Your task to perform on an android device: What is the recent news? Image 0: 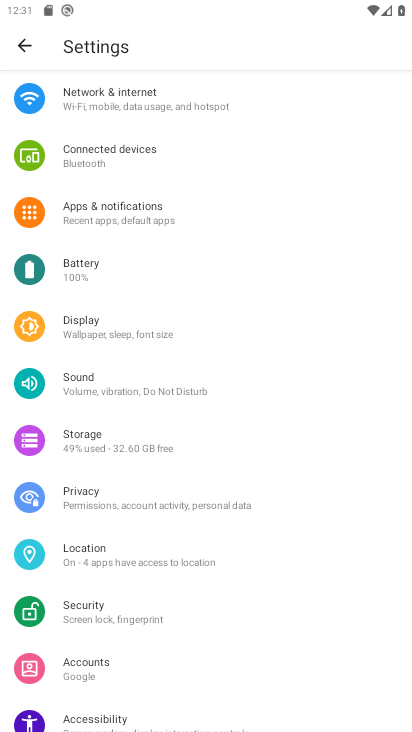
Step 0: press home button
Your task to perform on an android device: What is the recent news? Image 1: 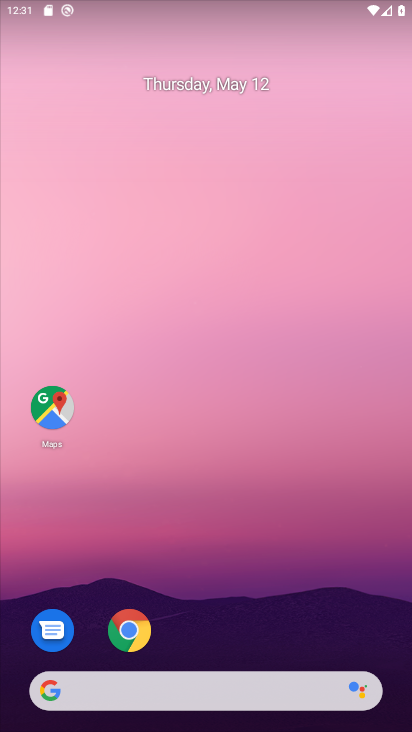
Step 1: drag from (289, 533) to (334, 81)
Your task to perform on an android device: What is the recent news? Image 2: 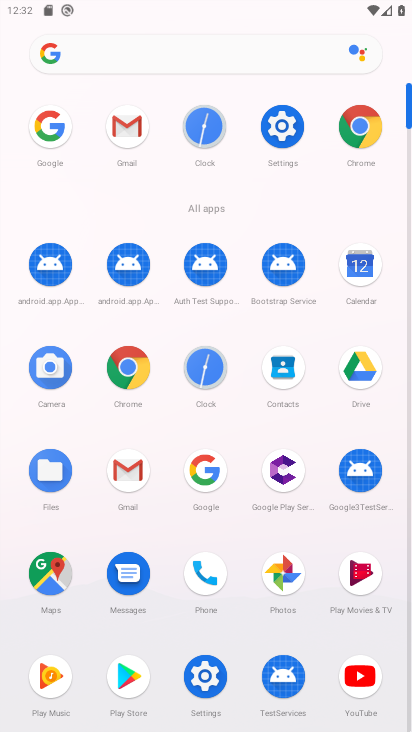
Step 2: click (119, 377)
Your task to perform on an android device: What is the recent news? Image 3: 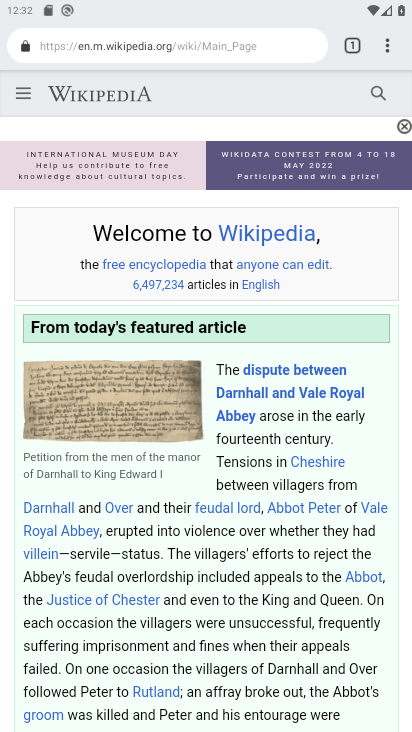
Step 3: click (263, 45)
Your task to perform on an android device: What is the recent news? Image 4: 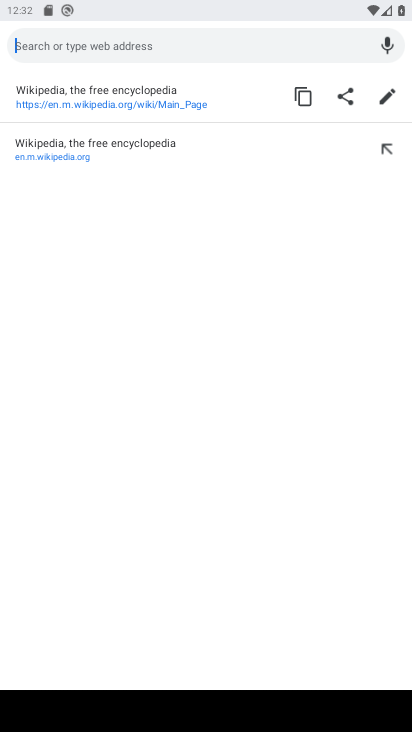
Step 4: type "What is the recent news?"
Your task to perform on an android device: What is the recent news? Image 5: 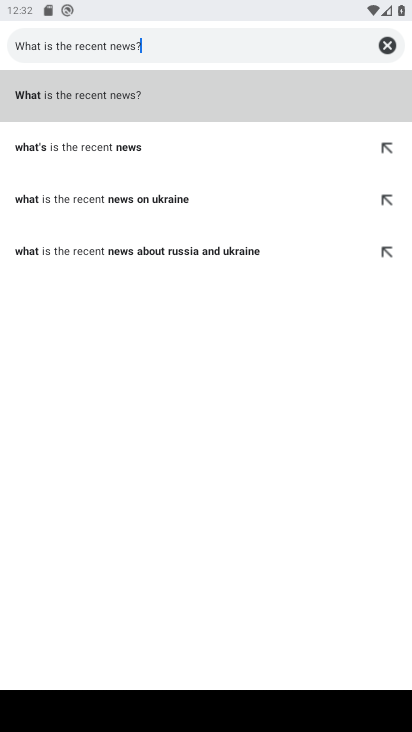
Step 5: click (59, 93)
Your task to perform on an android device: What is the recent news? Image 6: 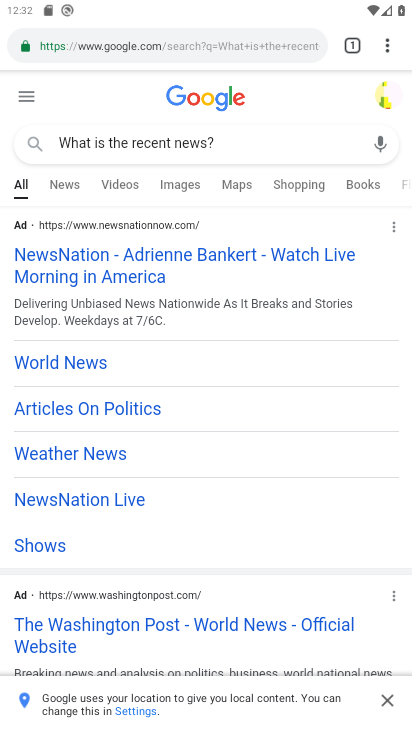
Step 6: click (65, 186)
Your task to perform on an android device: What is the recent news? Image 7: 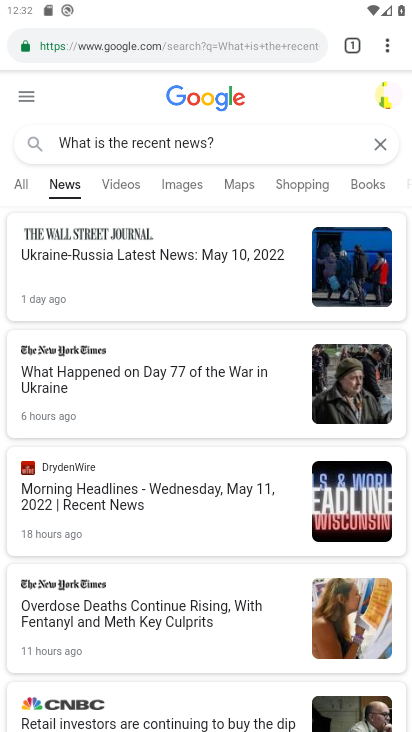
Step 7: task complete